Your task to perform on an android device: Check the news Image 0: 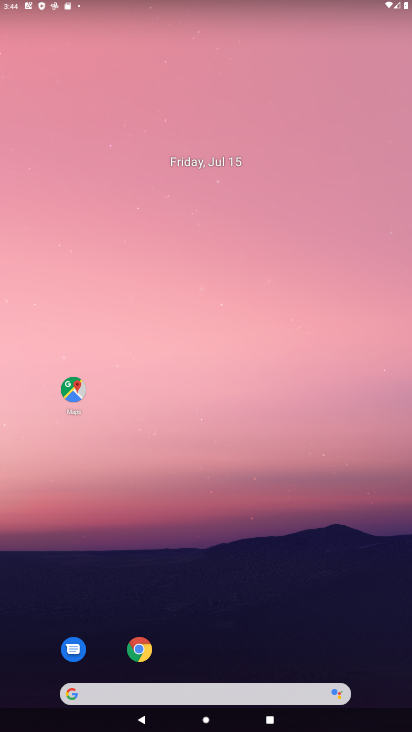
Step 0: drag from (262, 551) to (261, 131)
Your task to perform on an android device: Check the news Image 1: 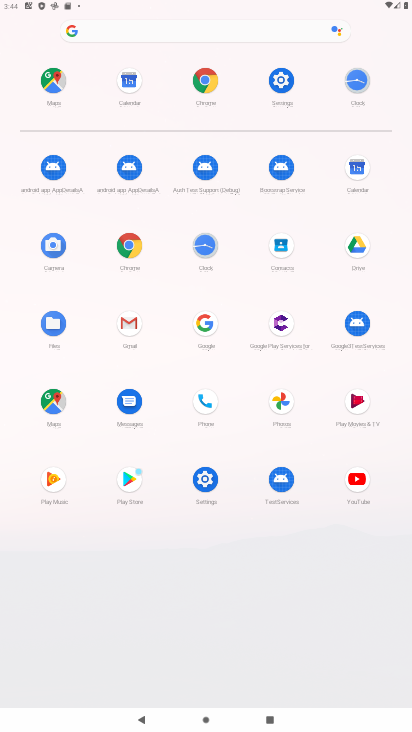
Step 1: click (128, 248)
Your task to perform on an android device: Check the news Image 2: 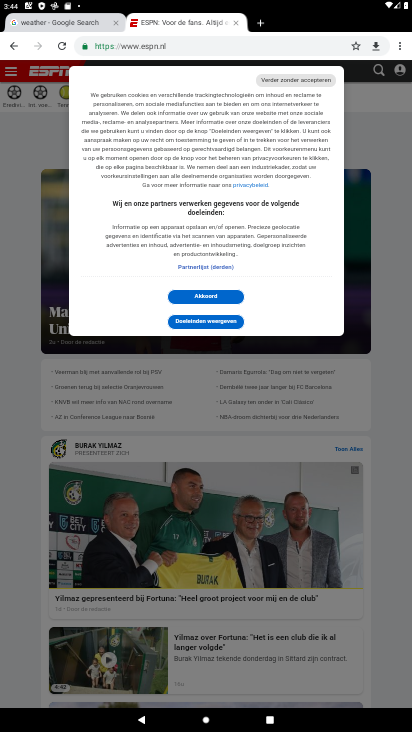
Step 2: click (263, 42)
Your task to perform on an android device: Check the news Image 3: 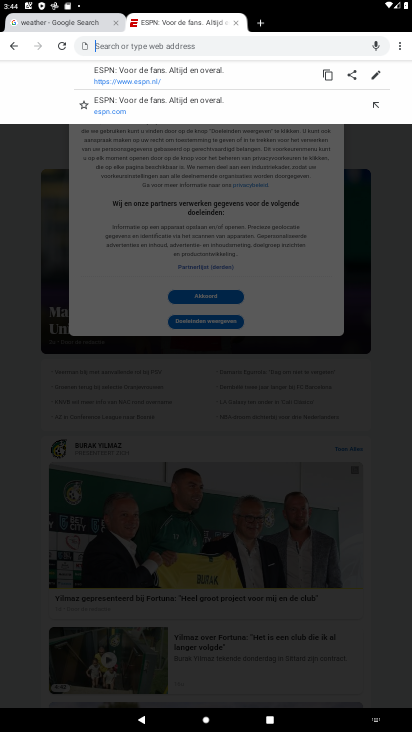
Step 3: type "news"
Your task to perform on an android device: Check the news Image 4: 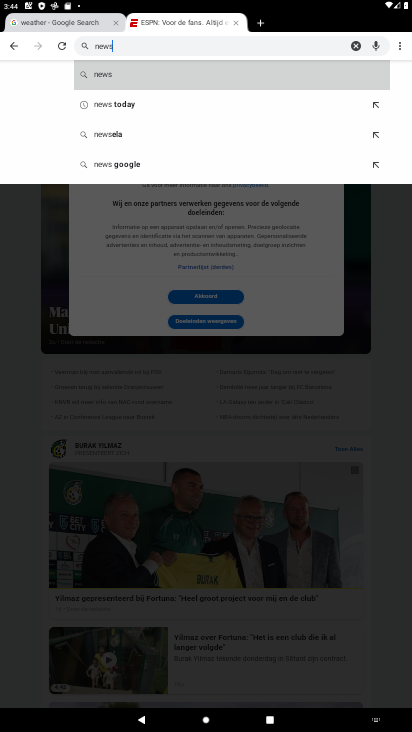
Step 4: click (87, 72)
Your task to perform on an android device: Check the news Image 5: 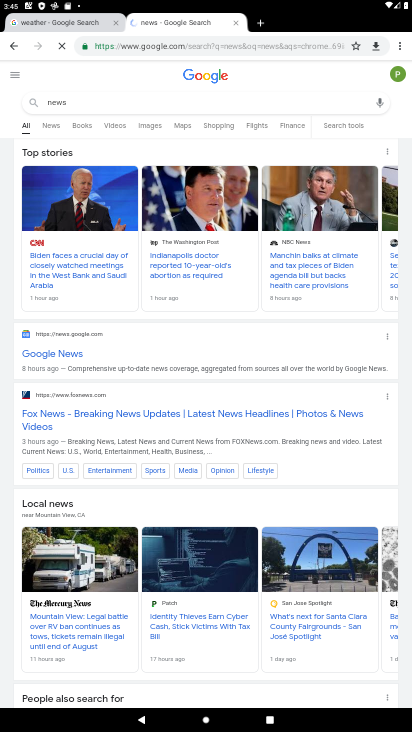
Step 5: click (71, 358)
Your task to perform on an android device: Check the news Image 6: 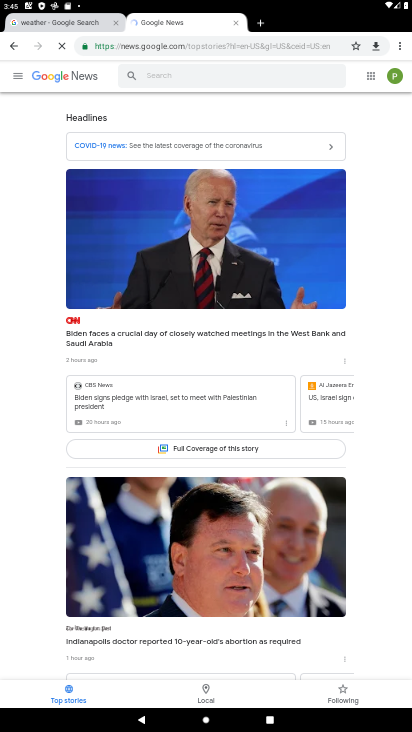
Step 6: task complete